Your task to perform on an android device: delete the emails in spam in the gmail app Image 0: 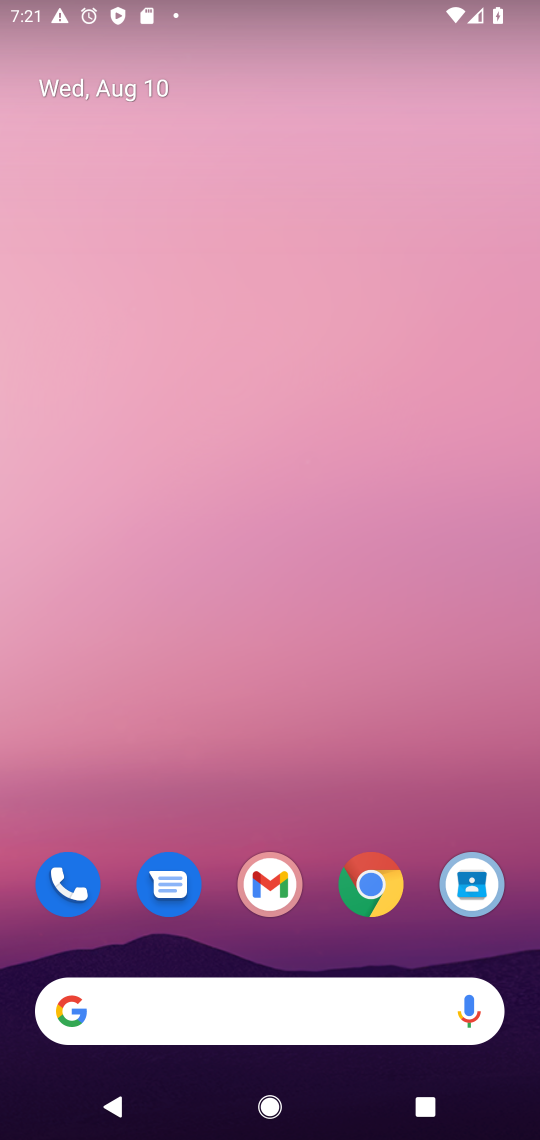
Step 0: click (258, 882)
Your task to perform on an android device: delete the emails in spam in the gmail app Image 1: 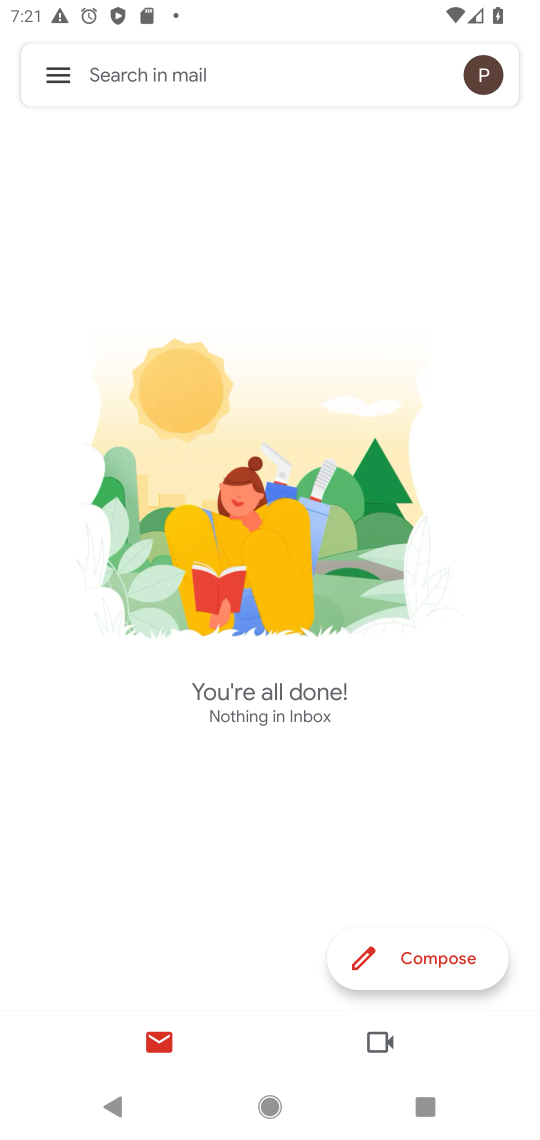
Step 1: click (63, 70)
Your task to perform on an android device: delete the emails in spam in the gmail app Image 2: 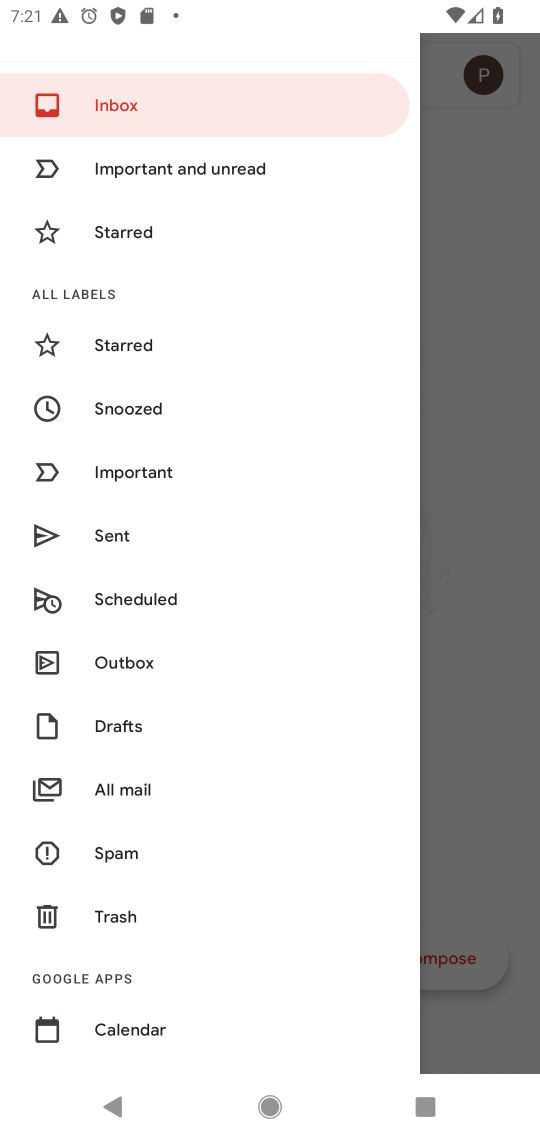
Step 2: click (105, 865)
Your task to perform on an android device: delete the emails in spam in the gmail app Image 3: 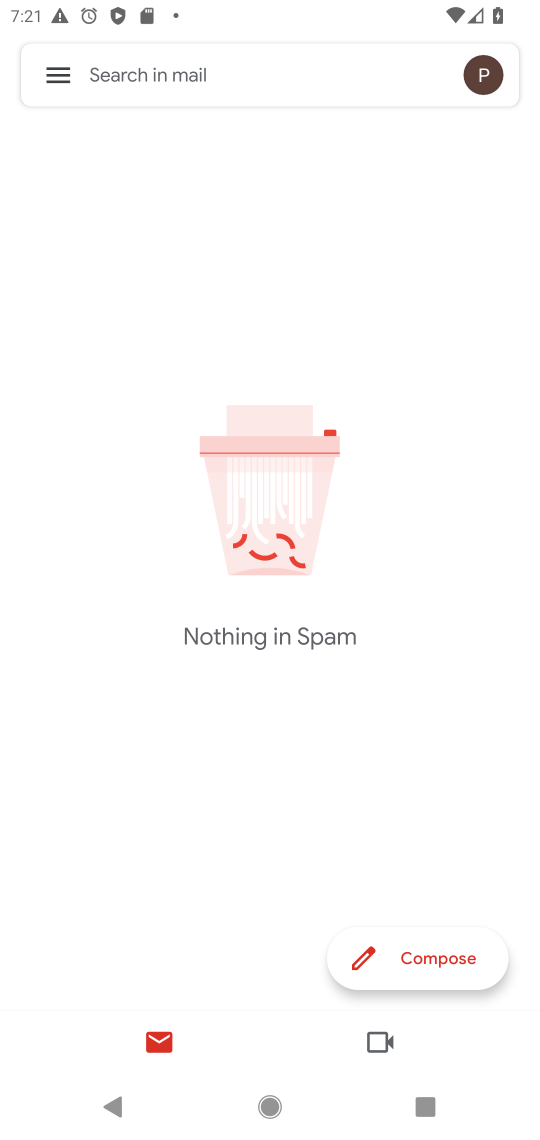
Step 3: task complete